Your task to perform on an android device: Open display settings Image 0: 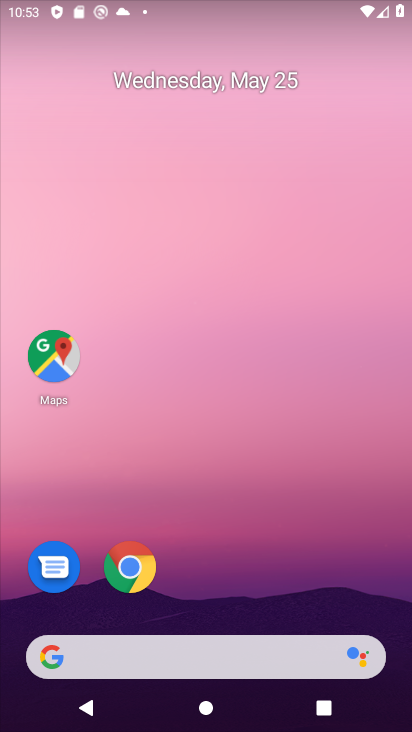
Step 0: drag from (222, 543) to (283, 12)
Your task to perform on an android device: Open display settings Image 1: 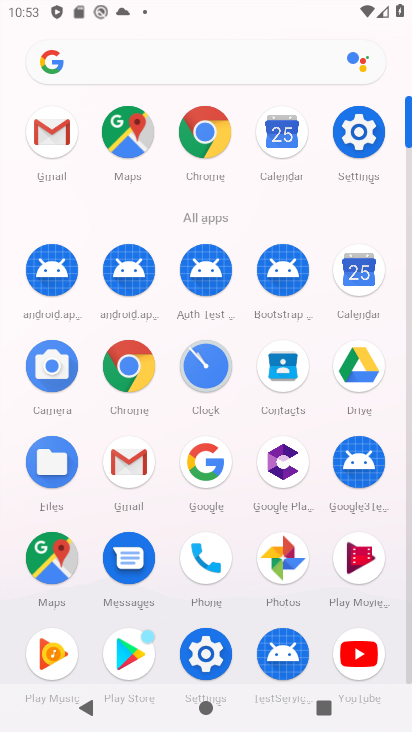
Step 1: click (379, 142)
Your task to perform on an android device: Open display settings Image 2: 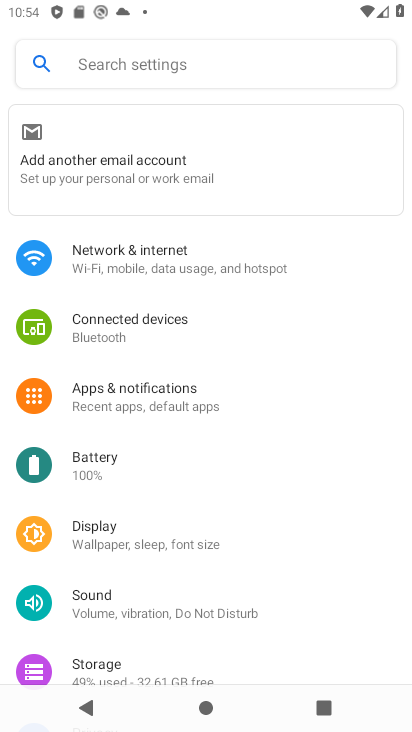
Step 2: click (120, 554)
Your task to perform on an android device: Open display settings Image 3: 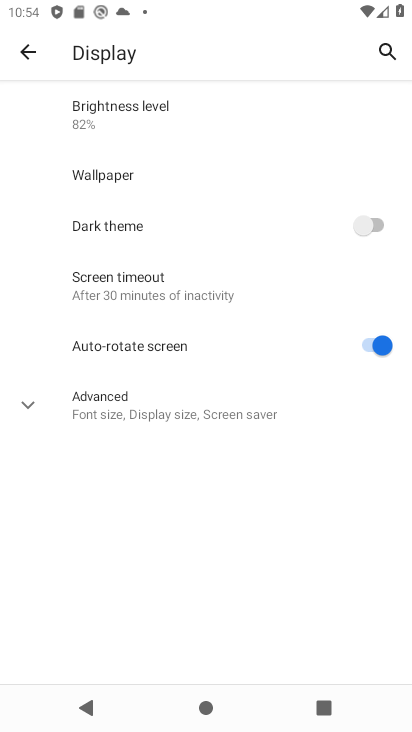
Step 3: task complete